Your task to perform on an android device: Open maps Image 0: 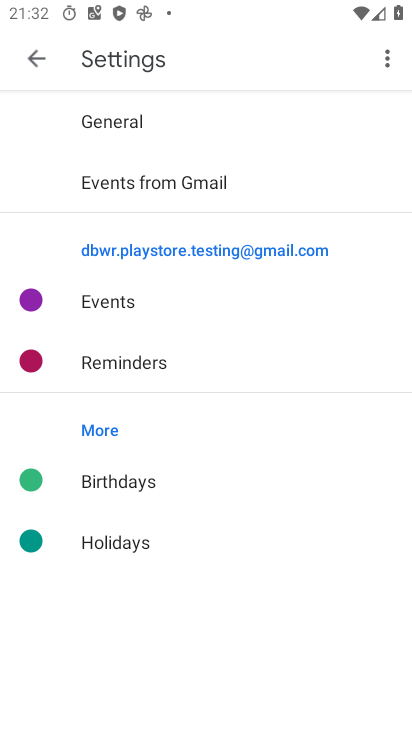
Step 0: press home button
Your task to perform on an android device: Open maps Image 1: 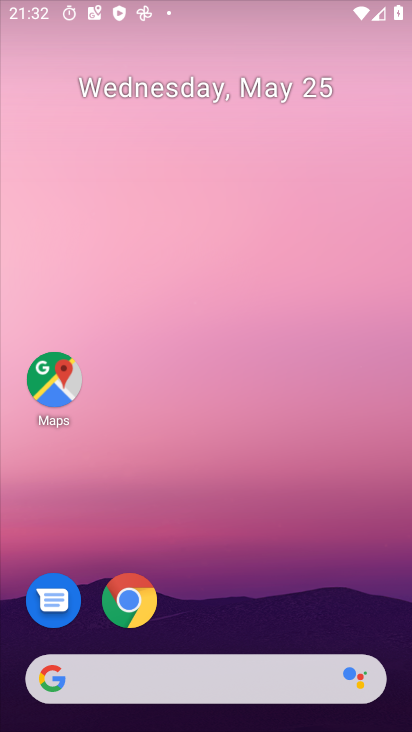
Step 1: drag from (340, 565) to (277, 201)
Your task to perform on an android device: Open maps Image 2: 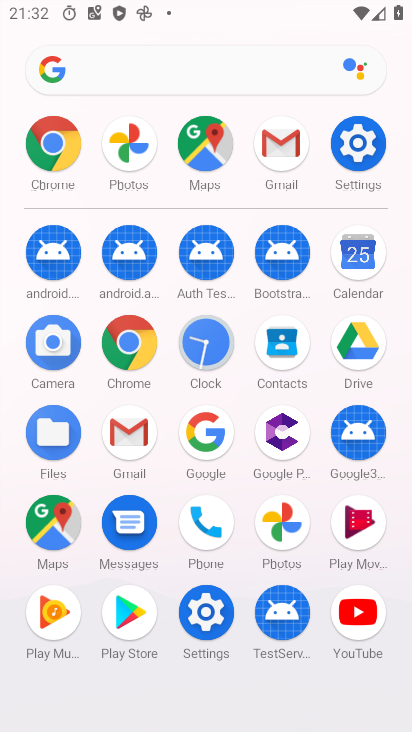
Step 2: click (218, 158)
Your task to perform on an android device: Open maps Image 3: 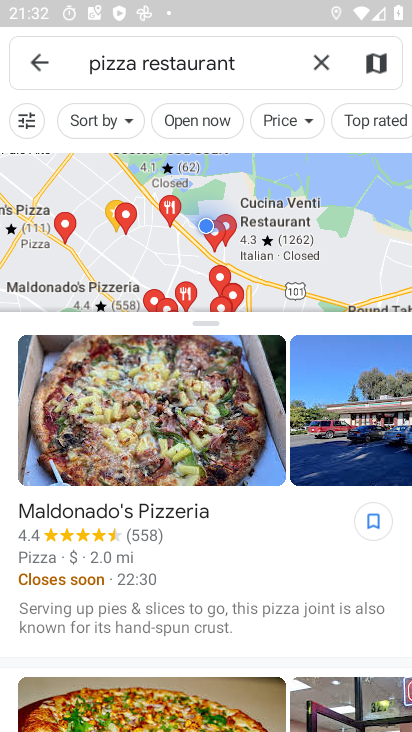
Step 3: task complete